Your task to perform on an android device: turn on airplane mode Image 0: 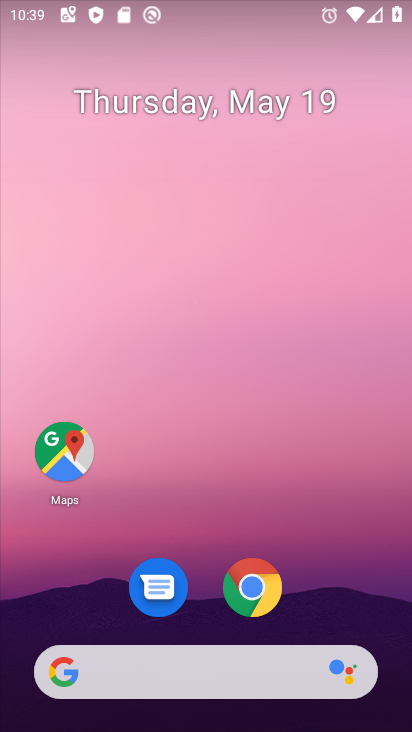
Step 0: press home button
Your task to perform on an android device: turn on airplane mode Image 1: 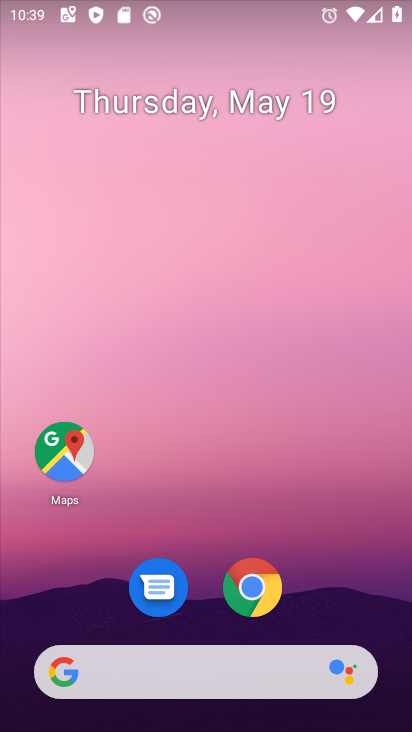
Step 1: drag from (347, 607) to (316, 136)
Your task to perform on an android device: turn on airplane mode Image 2: 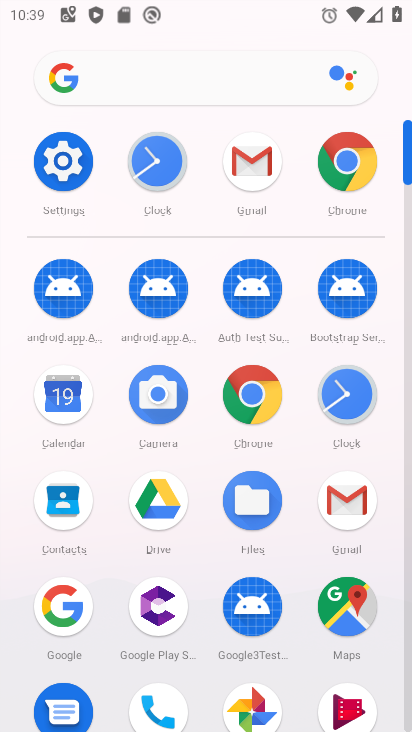
Step 2: click (66, 172)
Your task to perform on an android device: turn on airplane mode Image 3: 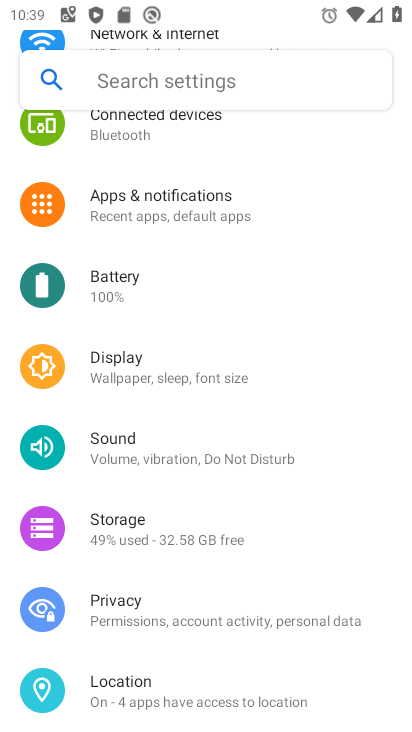
Step 3: drag from (243, 191) to (349, 658)
Your task to perform on an android device: turn on airplane mode Image 4: 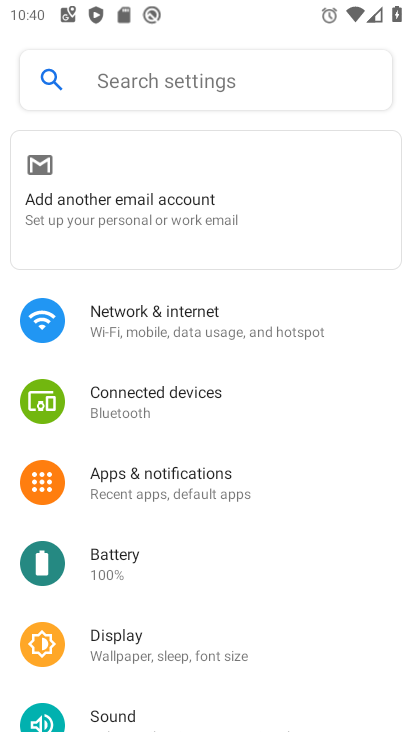
Step 4: click (239, 324)
Your task to perform on an android device: turn on airplane mode Image 5: 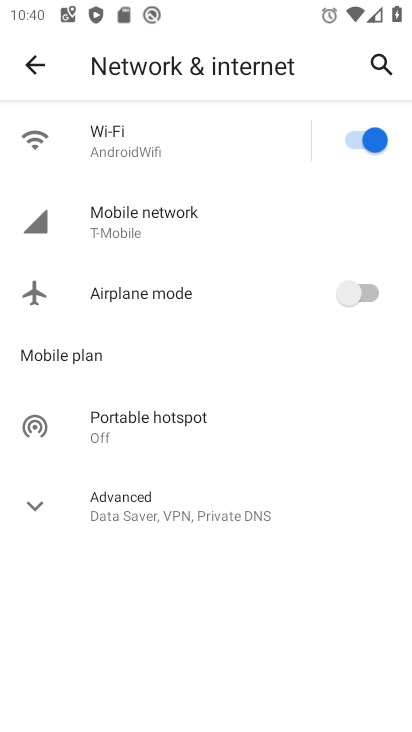
Step 5: click (367, 297)
Your task to perform on an android device: turn on airplane mode Image 6: 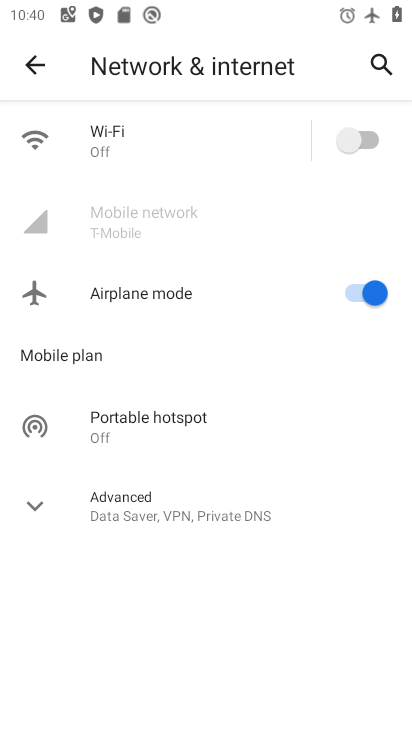
Step 6: task complete